Your task to perform on an android device: Search for seafood restaurants on Google Maps Image 0: 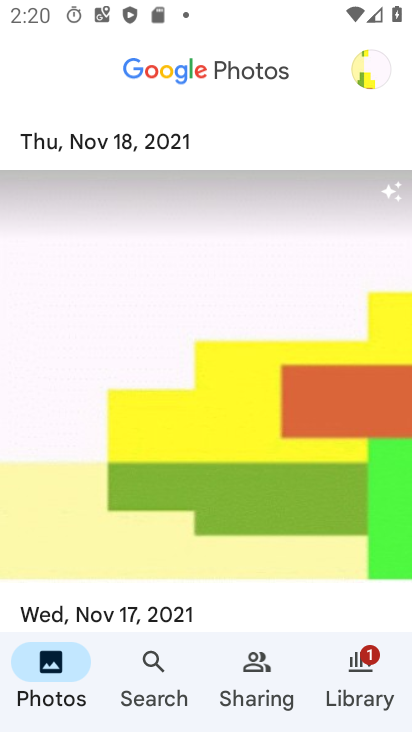
Step 0: press home button
Your task to perform on an android device: Search for seafood restaurants on Google Maps Image 1: 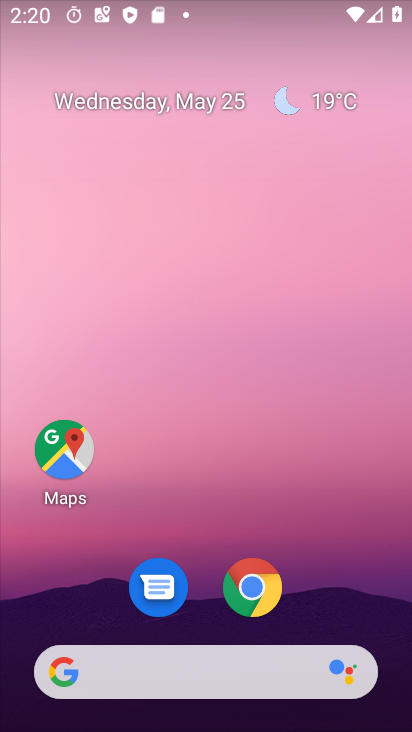
Step 1: drag from (331, 598) to (363, 151)
Your task to perform on an android device: Search for seafood restaurants on Google Maps Image 2: 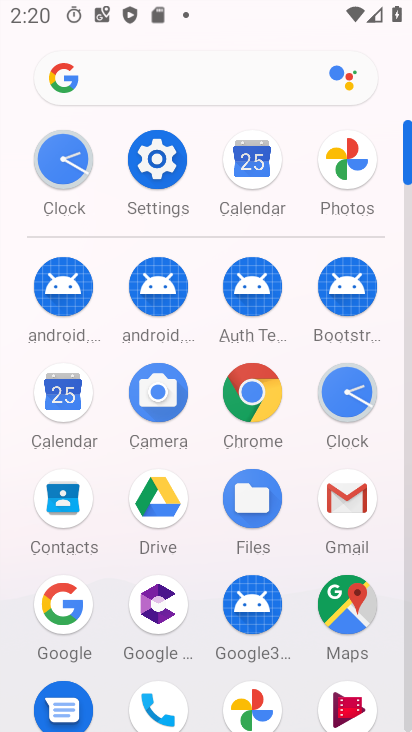
Step 2: click (350, 603)
Your task to perform on an android device: Search for seafood restaurants on Google Maps Image 3: 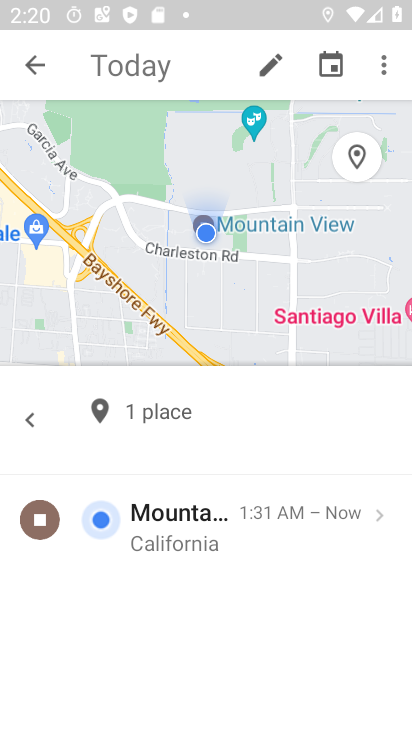
Step 3: press back button
Your task to perform on an android device: Search for seafood restaurants on Google Maps Image 4: 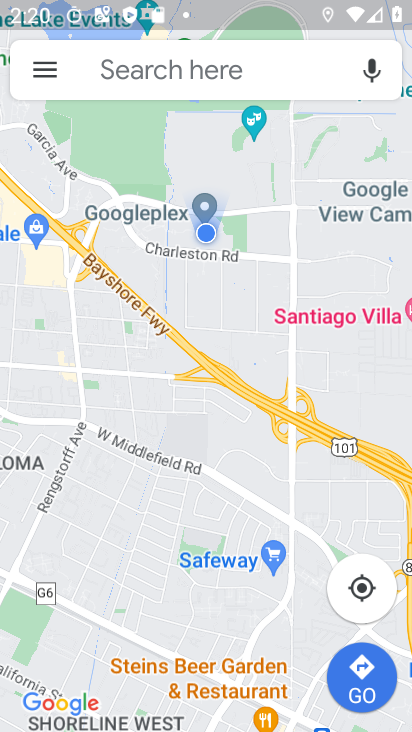
Step 4: click (212, 69)
Your task to perform on an android device: Search for seafood restaurants on Google Maps Image 5: 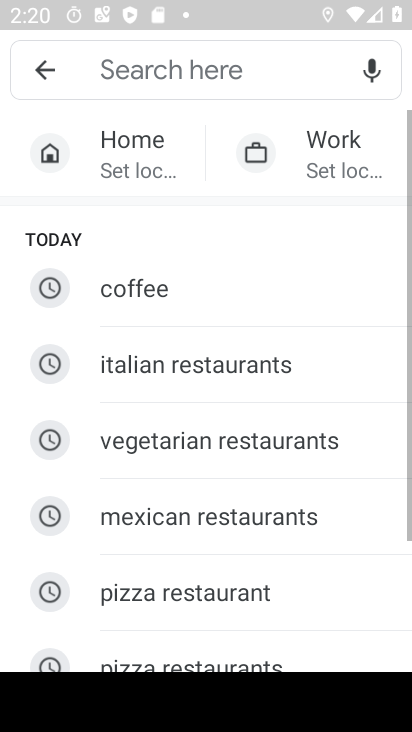
Step 5: drag from (207, 542) to (224, 271)
Your task to perform on an android device: Search for seafood restaurants on Google Maps Image 6: 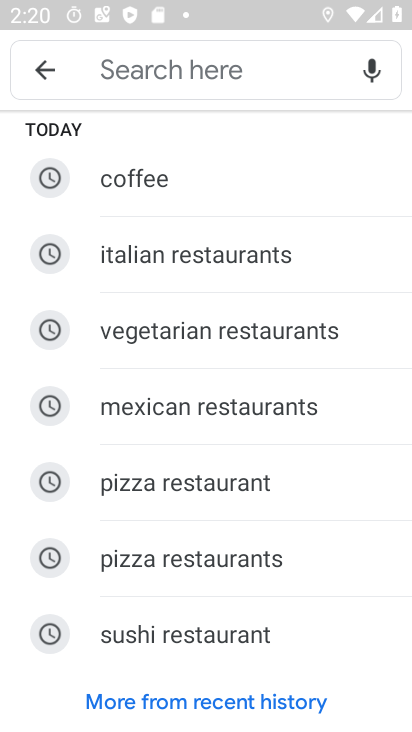
Step 6: drag from (217, 214) to (243, 525)
Your task to perform on an android device: Search for seafood restaurants on Google Maps Image 7: 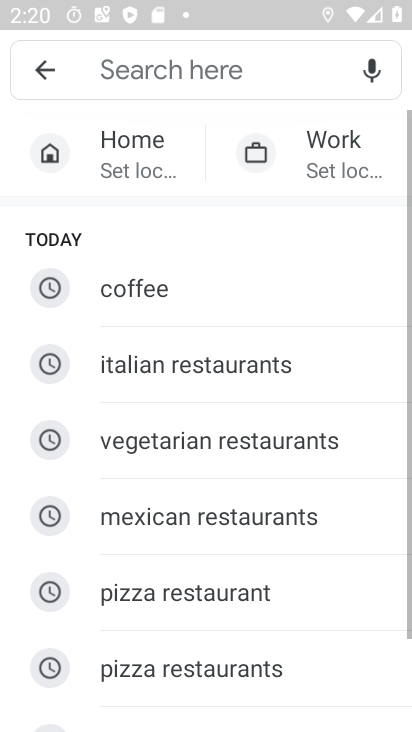
Step 7: click (190, 65)
Your task to perform on an android device: Search for seafood restaurants on Google Maps Image 8: 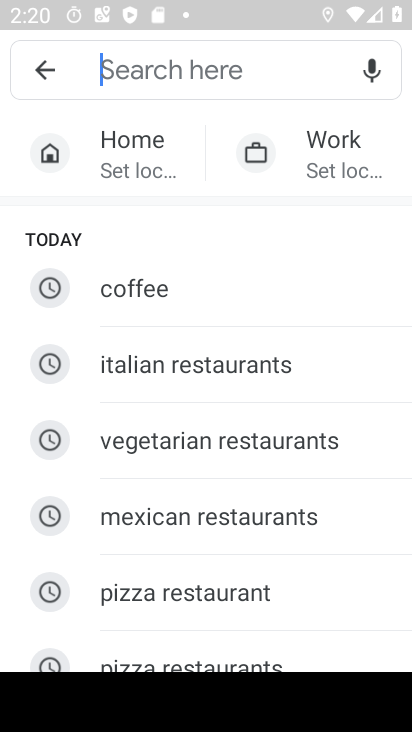
Step 8: type "seafood restaurent"
Your task to perform on an android device: Search for seafood restaurants on Google Maps Image 9: 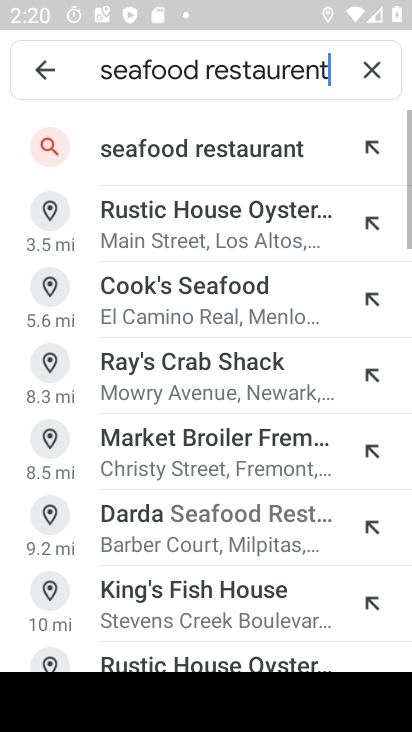
Step 9: click (183, 152)
Your task to perform on an android device: Search for seafood restaurants on Google Maps Image 10: 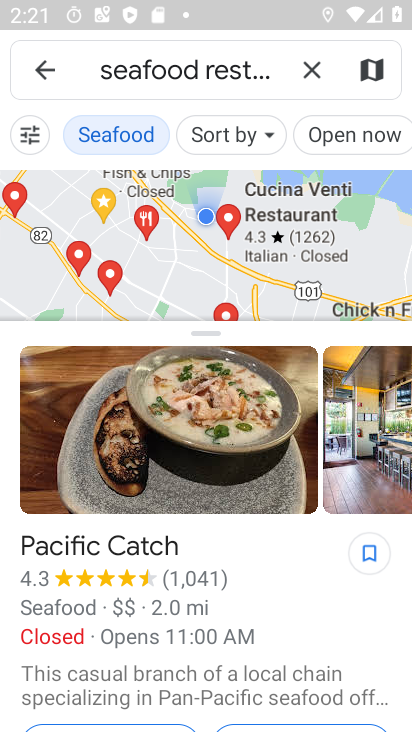
Step 10: task complete